Your task to perform on an android device: turn on javascript in the chrome app Image 0: 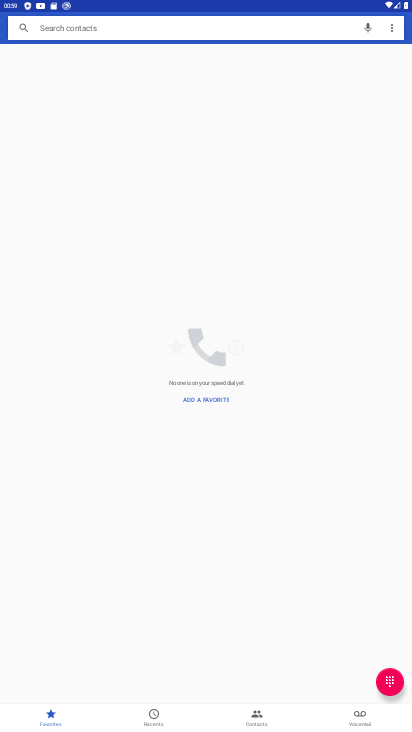
Step 0: press back button
Your task to perform on an android device: turn on javascript in the chrome app Image 1: 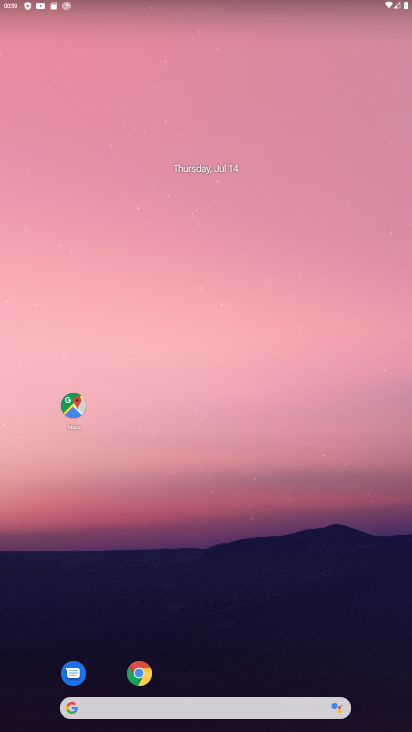
Step 1: drag from (261, 674) to (198, 307)
Your task to perform on an android device: turn on javascript in the chrome app Image 2: 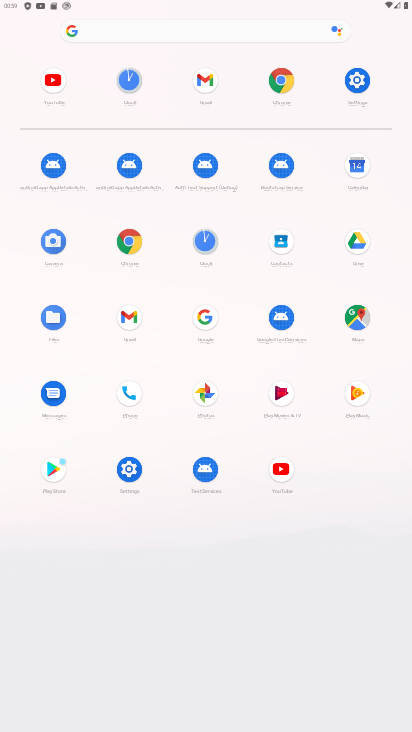
Step 2: click (132, 252)
Your task to perform on an android device: turn on javascript in the chrome app Image 3: 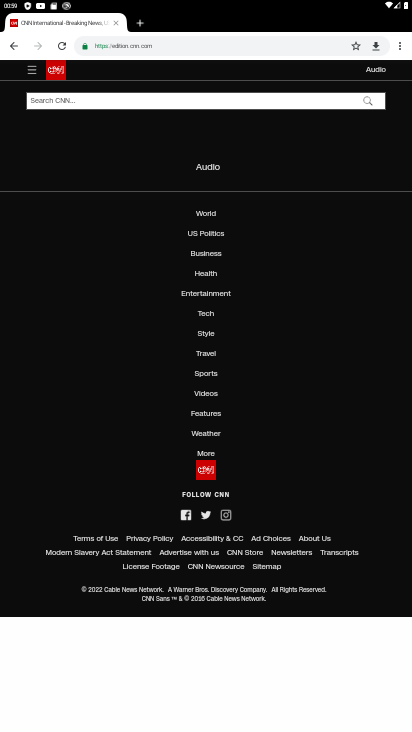
Step 3: task complete